Your task to perform on an android device: delete a single message in the gmail app Image 0: 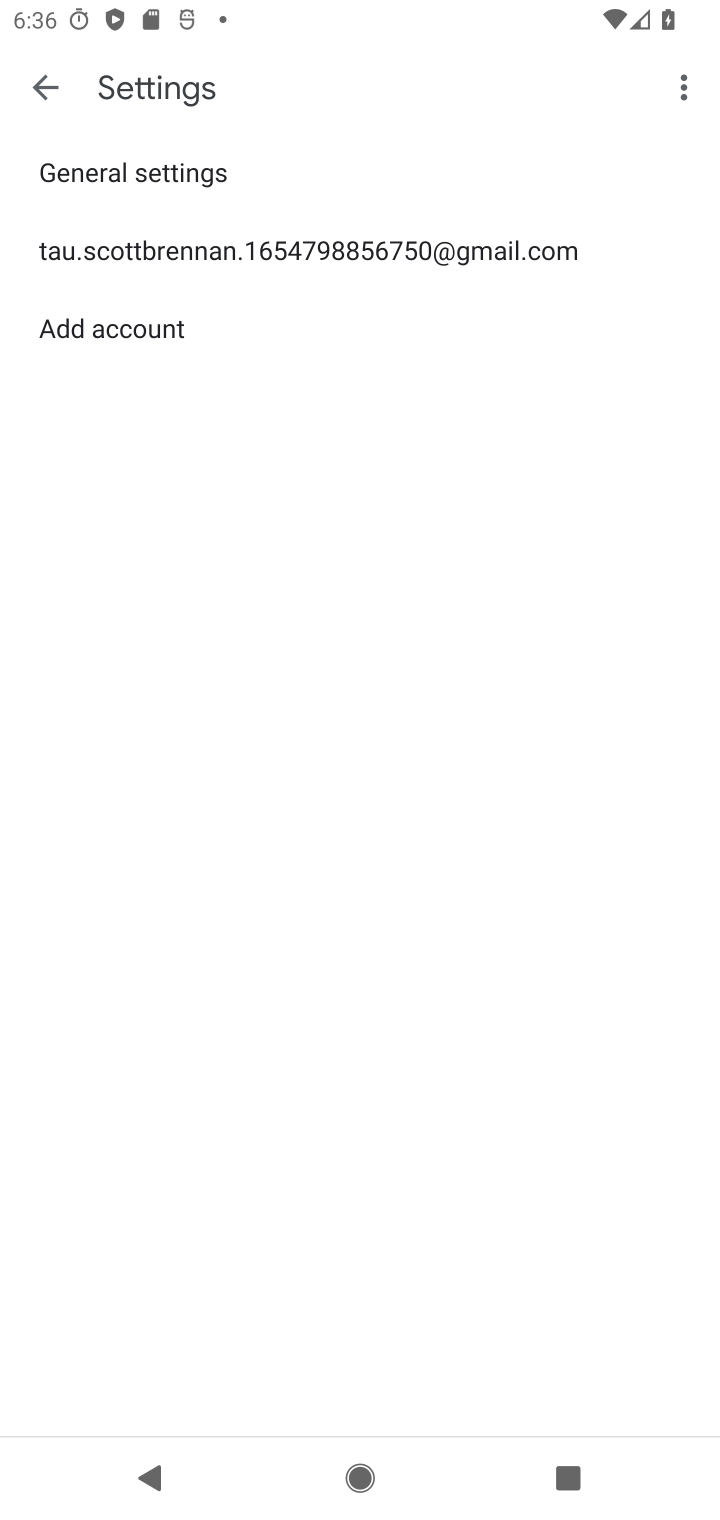
Step 0: press home button
Your task to perform on an android device: delete a single message in the gmail app Image 1: 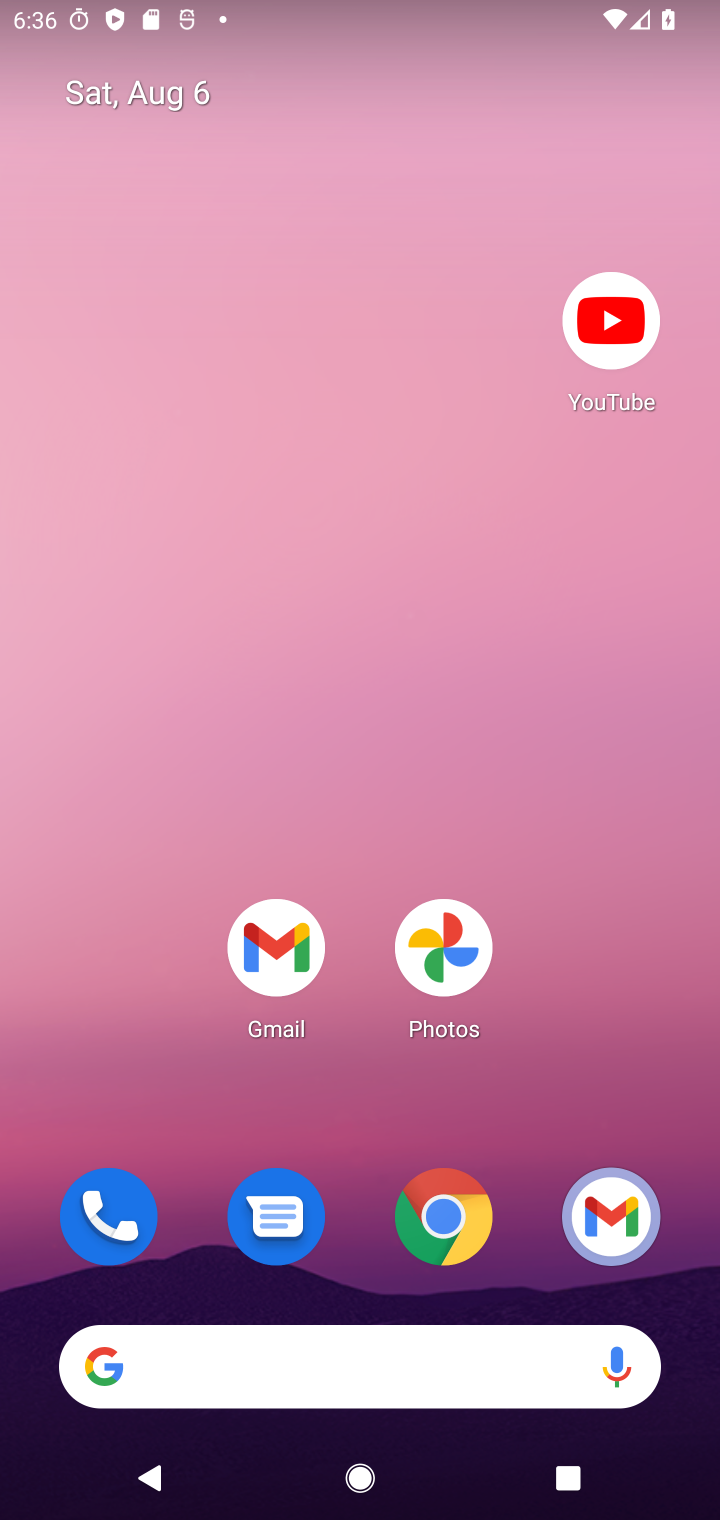
Step 1: drag from (582, 1184) to (592, 228)
Your task to perform on an android device: delete a single message in the gmail app Image 2: 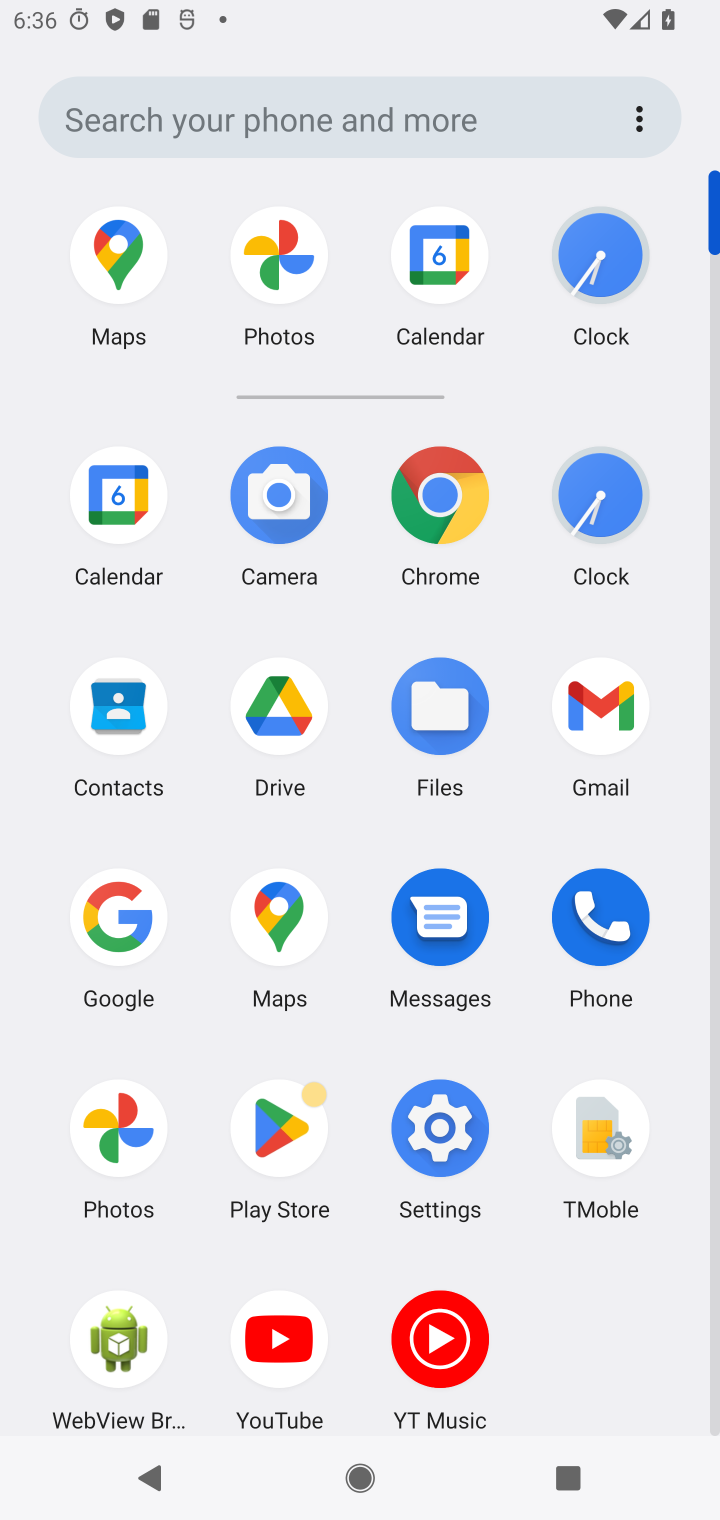
Step 2: click (585, 687)
Your task to perform on an android device: delete a single message in the gmail app Image 3: 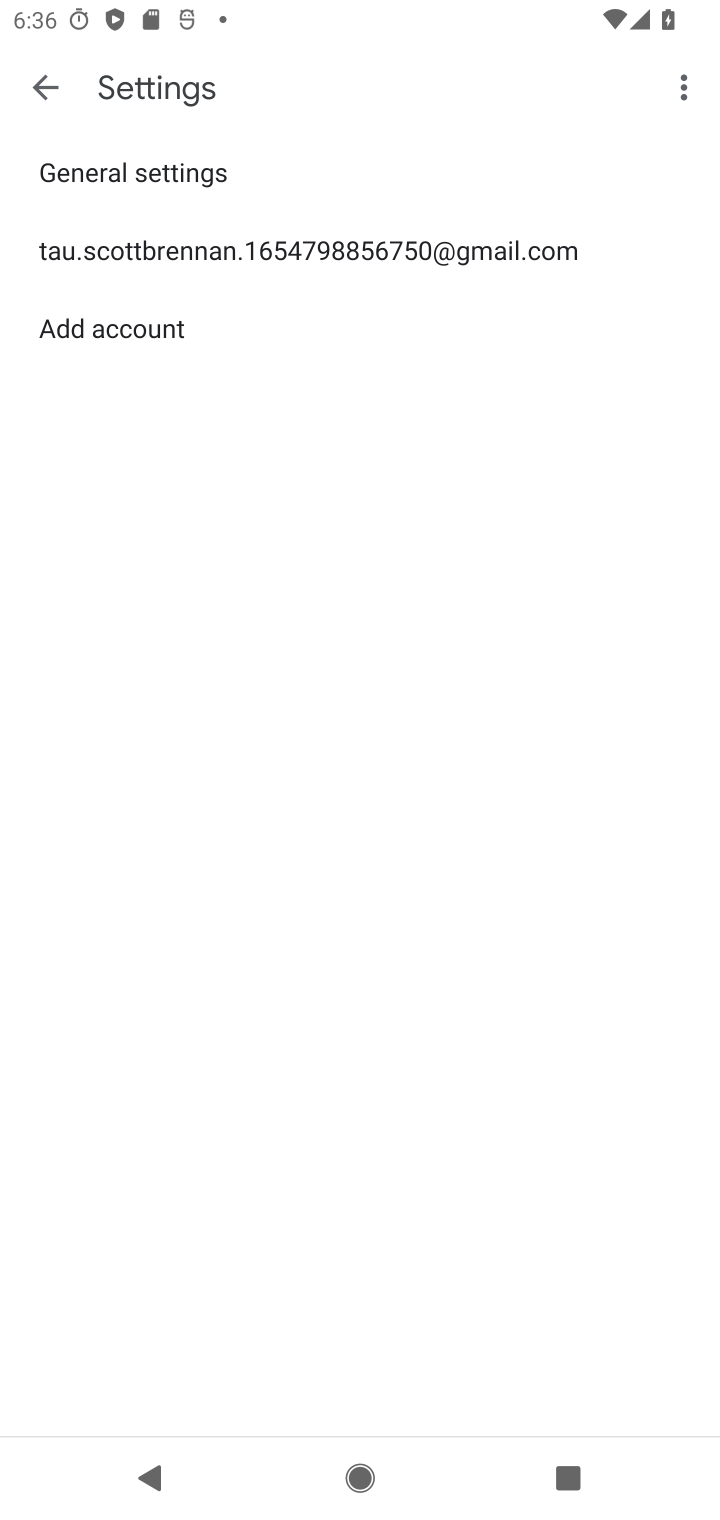
Step 3: click (44, 88)
Your task to perform on an android device: delete a single message in the gmail app Image 4: 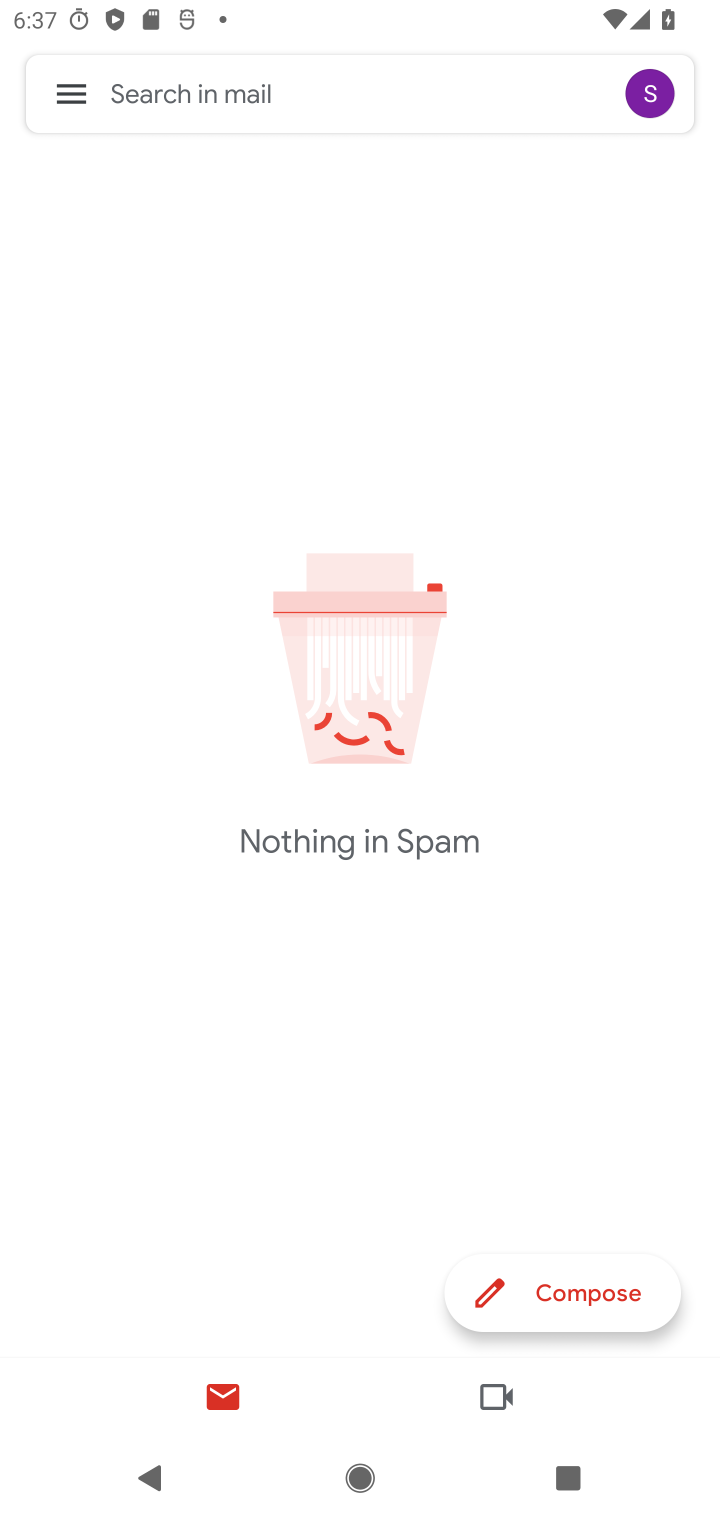
Step 4: click (57, 53)
Your task to perform on an android device: delete a single message in the gmail app Image 5: 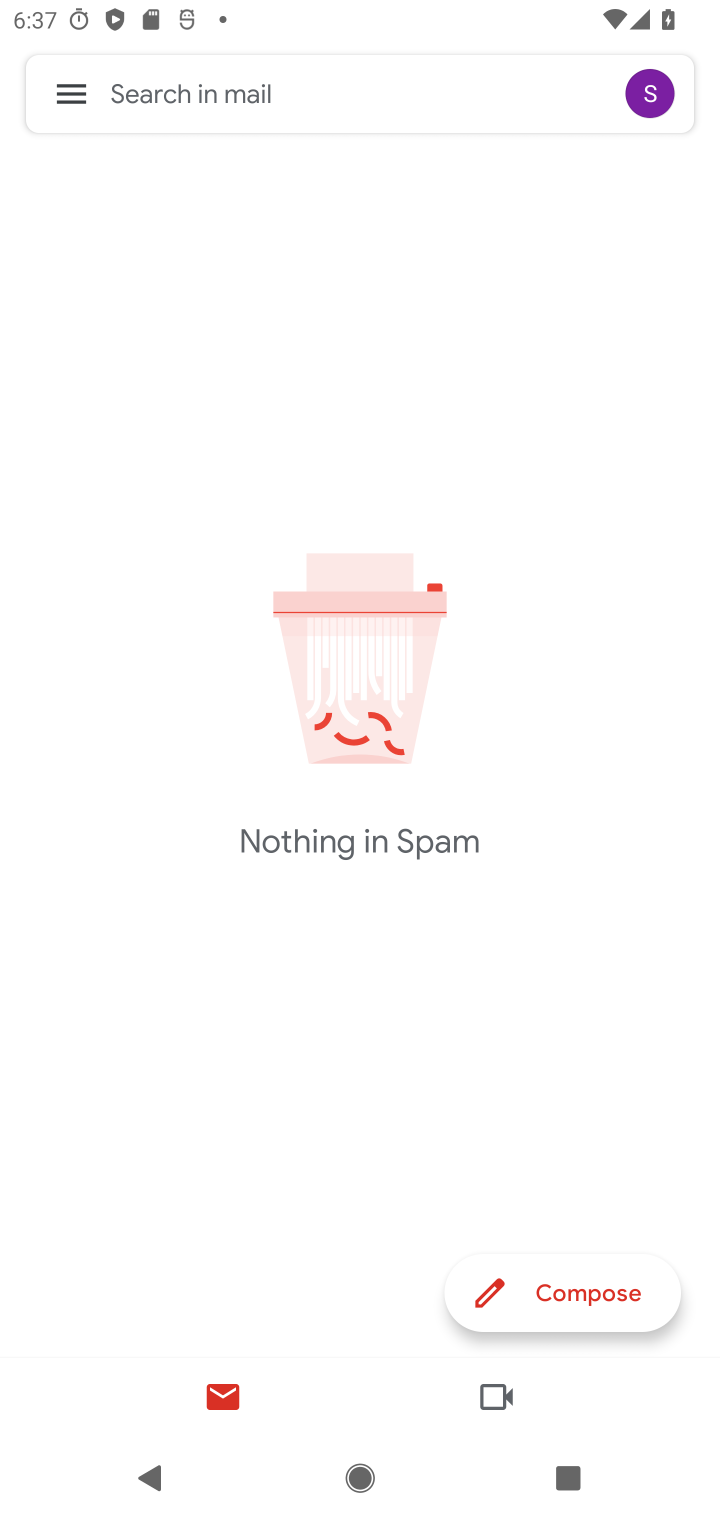
Step 5: click (81, 94)
Your task to perform on an android device: delete a single message in the gmail app Image 6: 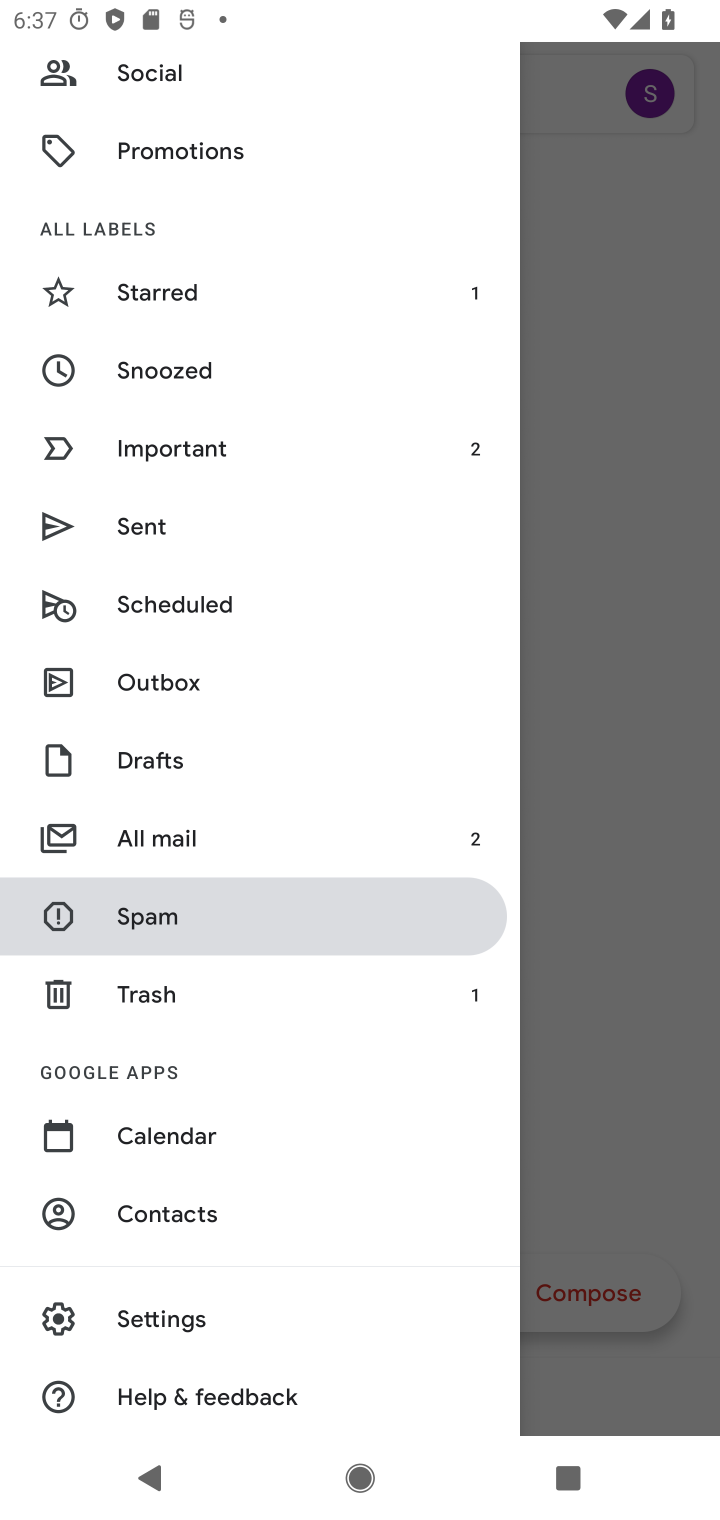
Step 6: click (142, 833)
Your task to perform on an android device: delete a single message in the gmail app Image 7: 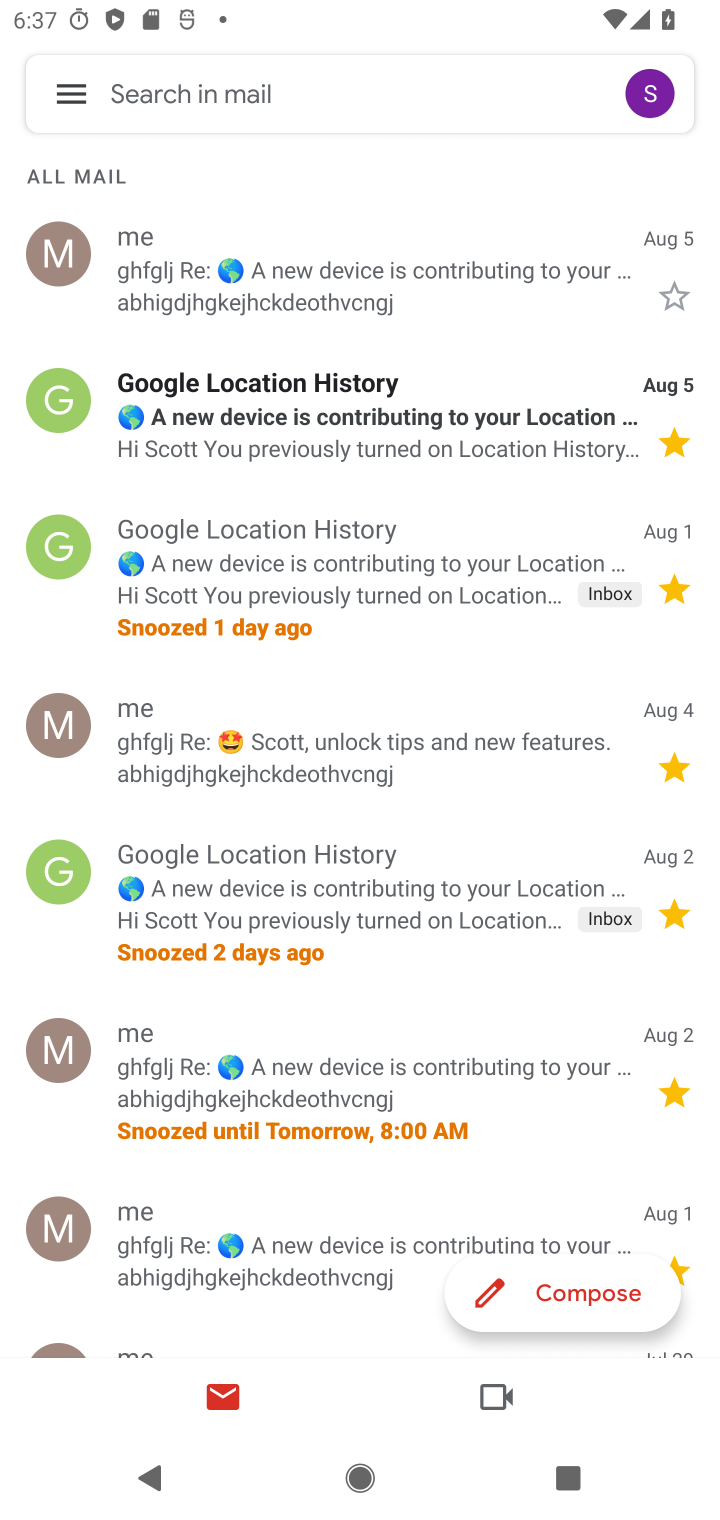
Step 7: click (328, 307)
Your task to perform on an android device: delete a single message in the gmail app Image 8: 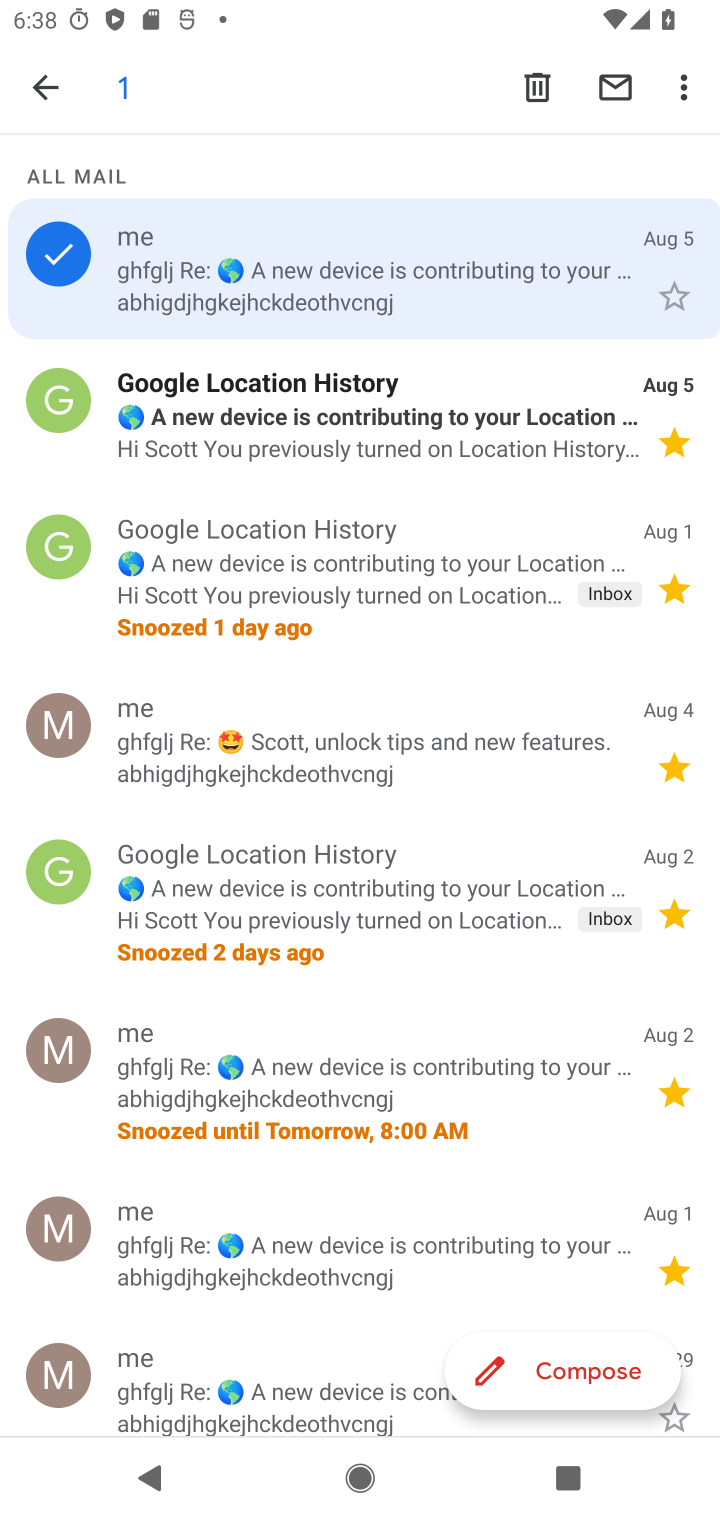
Step 8: click (528, 78)
Your task to perform on an android device: delete a single message in the gmail app Image 9: 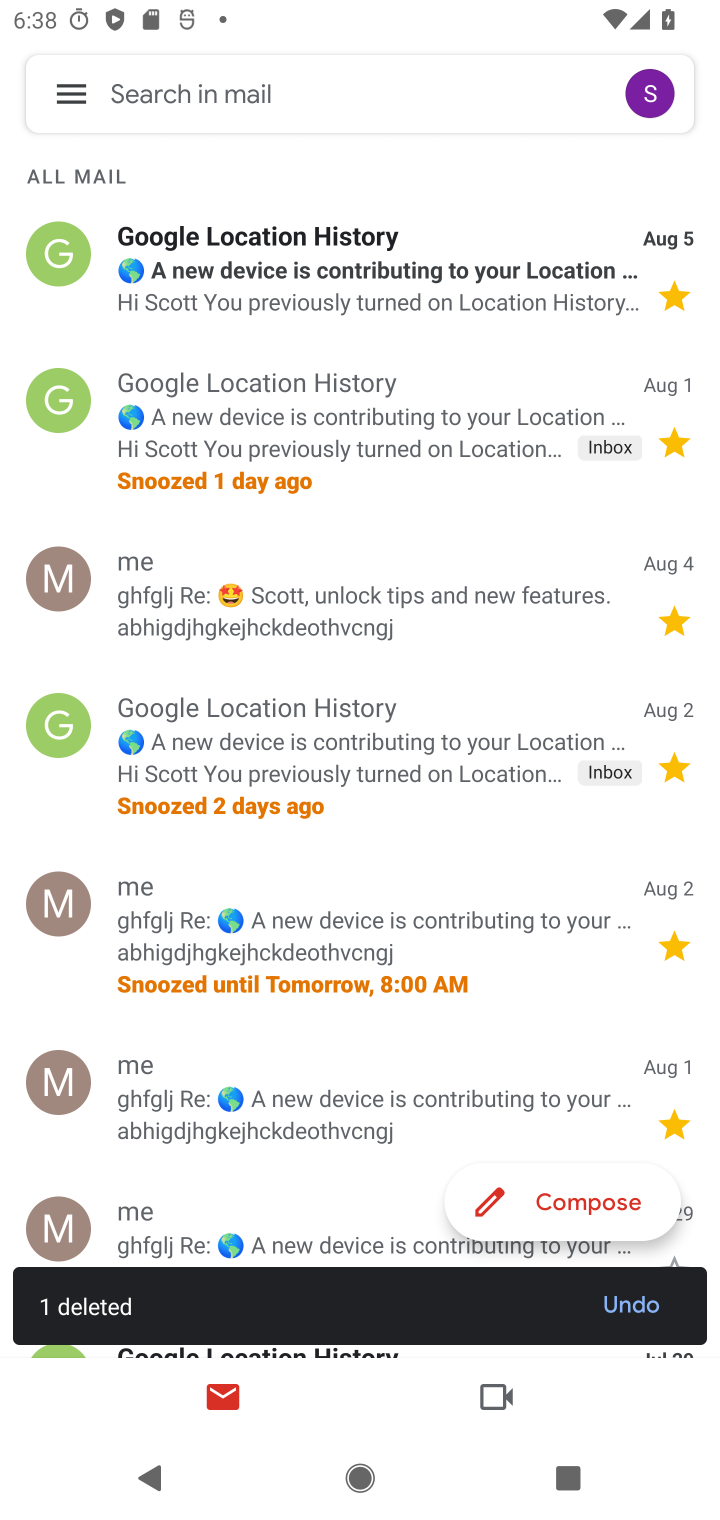
Step 9: task complete